Your task to perform on an android device: turn pop-ups off in chrome Image 0: 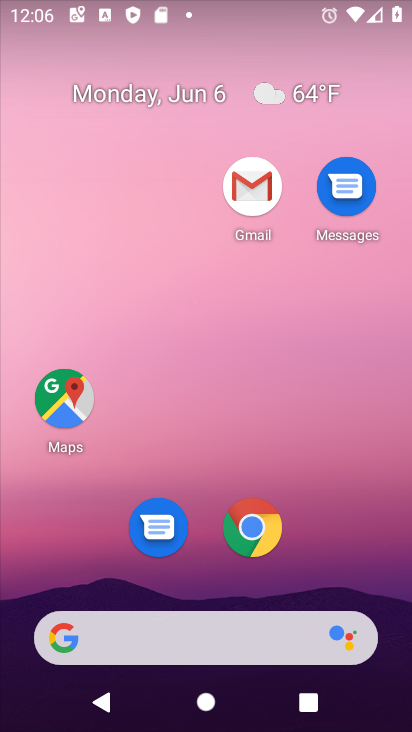
Step 0: click (282, 538)
Your task to perform on an android device: turn pop-ups off in chrome Image 1: 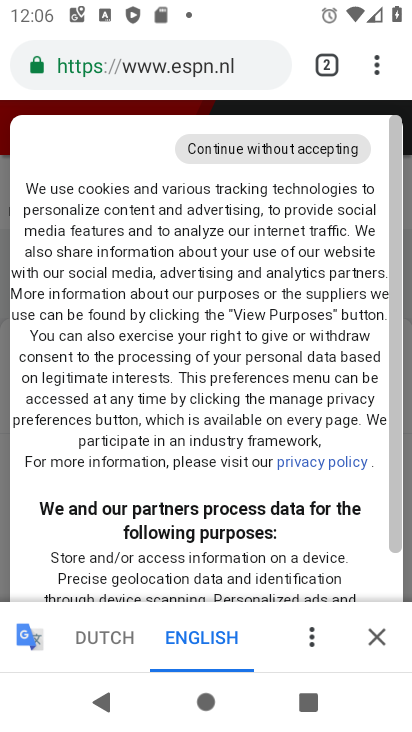
Step 1: click (370, 70)
Your task to perform on an android device: turn pop-ups off in chrome Image 2: 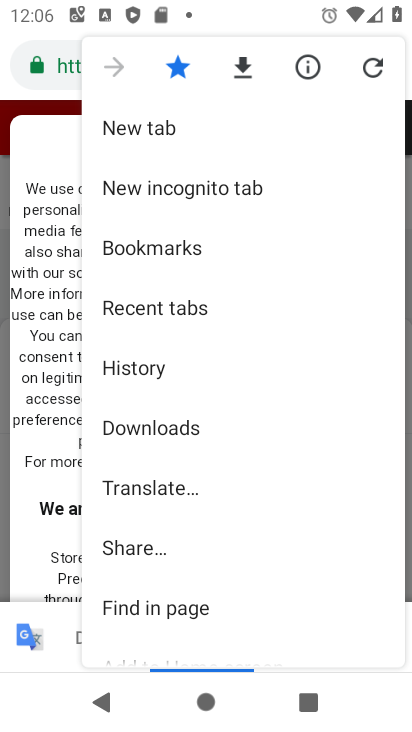
Step 2: drag from (192, 572) to (201, 185)
Your task to perform on an android device: turn pop-ups off in chrome Image 3: 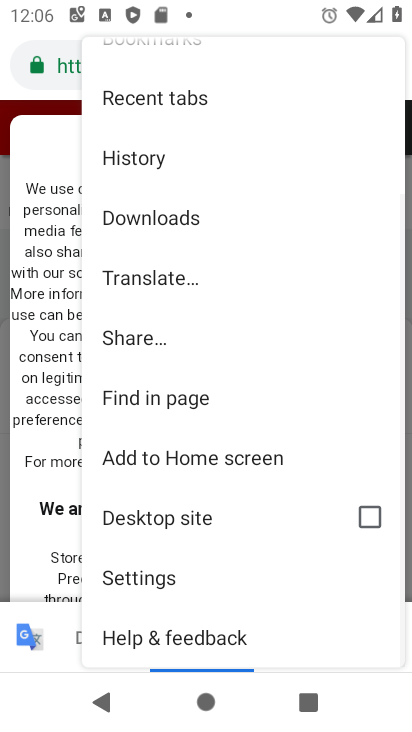
Step 3: click (135, 570)
Your task to perform on an android device: turn pop-ups off in chrome Image 4: 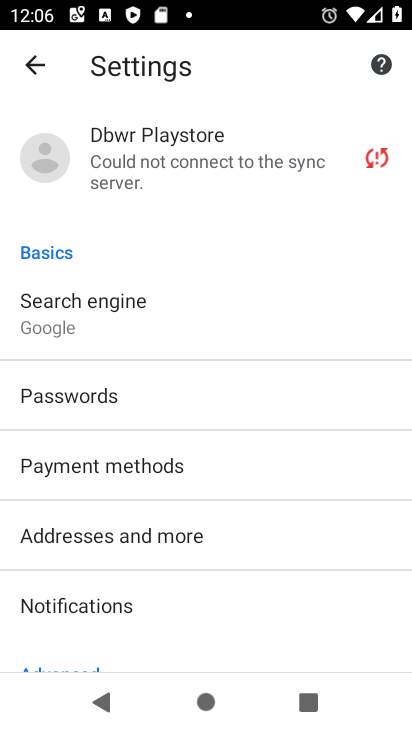
Step 4: drag from (228, 610) to (245, 160)
Your task to perform on an android device: turn pop-ups off in chrome Image 5: 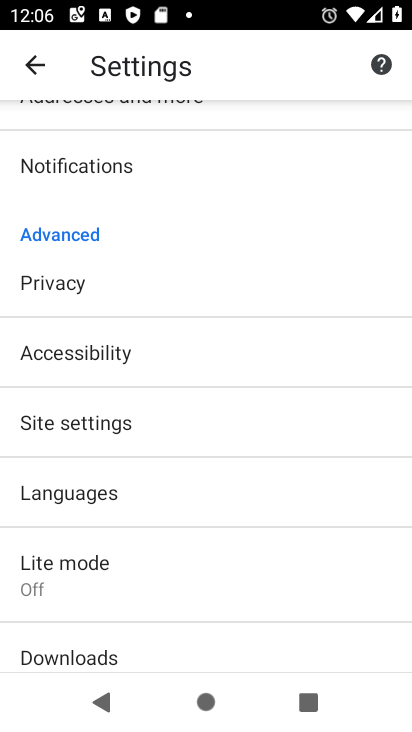
Step 5: click (149, 415)
Your task to perform on an android device: turn pop-ups off in chrome Image 6: 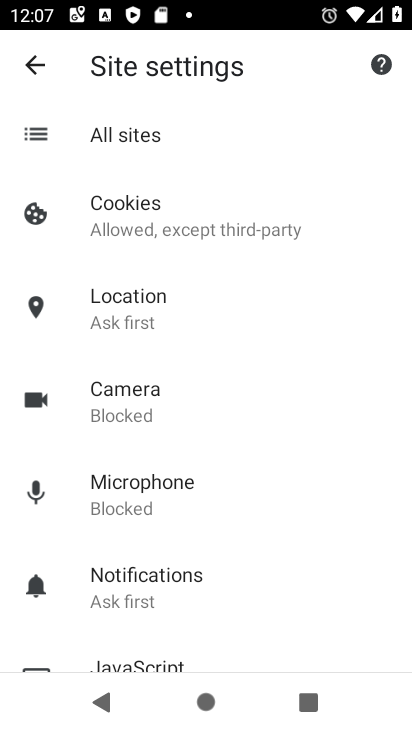
Step 6: drag from (178, 545) to (213, 210)
Your task to perform on an android device: turn pop-ups off in chrome Image 7: 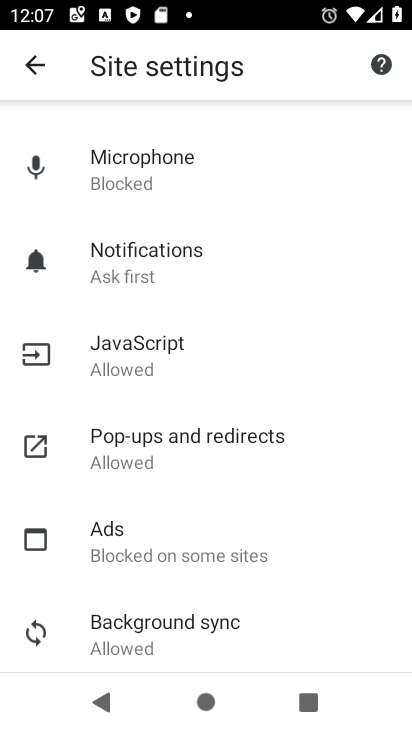
Step 7: click (187, 449)
Your task to perform on an android device: turn pop-ups off in chrome Image 8: 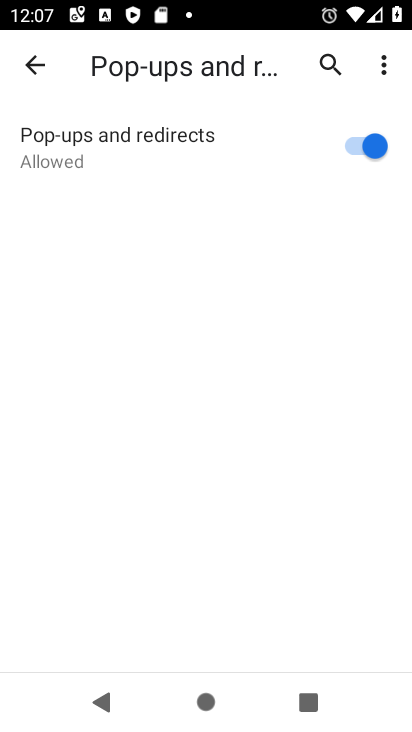
Step 8: click (351, 143)
Your task to perform on an android device: turn pop-ups off in chrome Image 9: 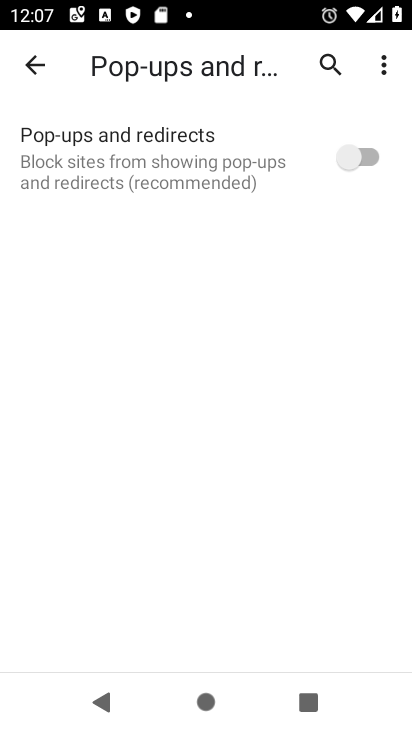
Step 9: task complete